Your task to perform on an android device: turn on priority inbox in the gmail app Image 0: 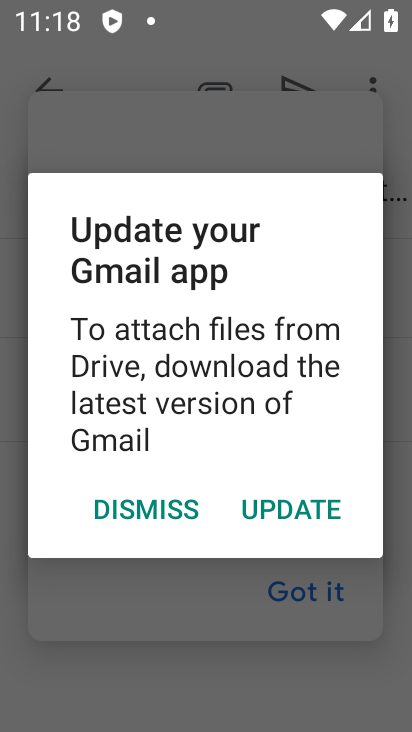
Step 0: press back button
Your task to perform on an android device: turn on priority inbox in the gmail app Image 1: 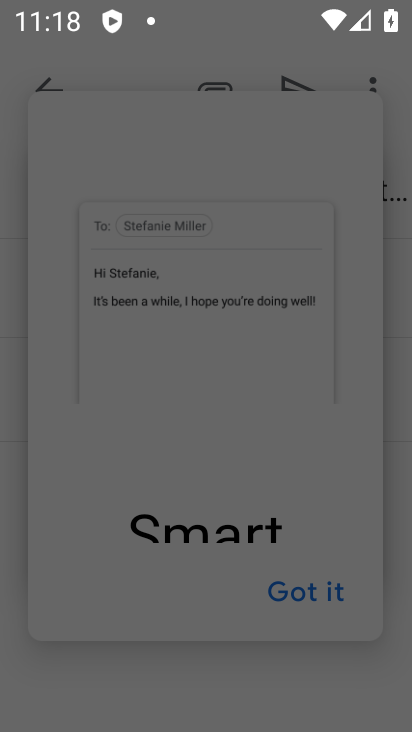
Step 1: press home button
Your task to perform on an android device: turn on priority inbox in the gmail app Image 2: 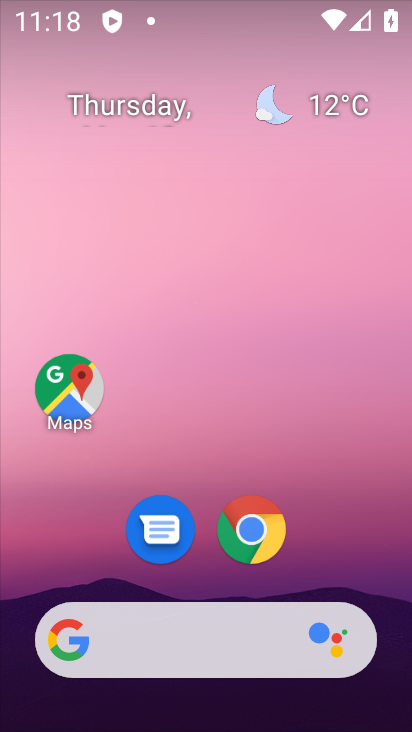
Step 2: drag from (342, 547) to (327, 269)
Your task to perform on an android device: turn on priority inbox in the gmail app Image 3: 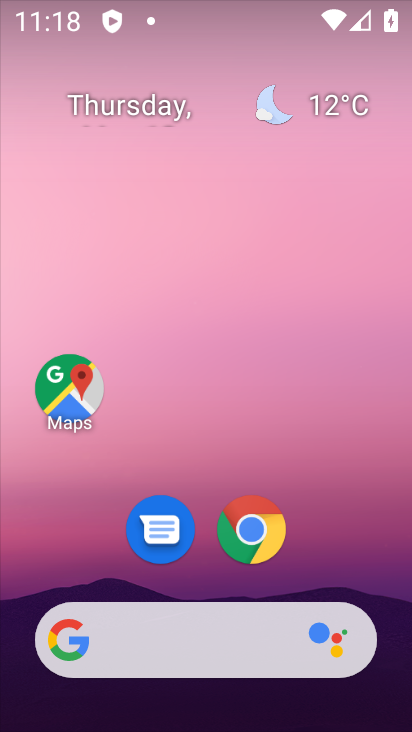
Step 3: drag from (286, 567) to (324, 118)
Your task to perform on an android device: turn on priority inbox in the gmail app Image 4: 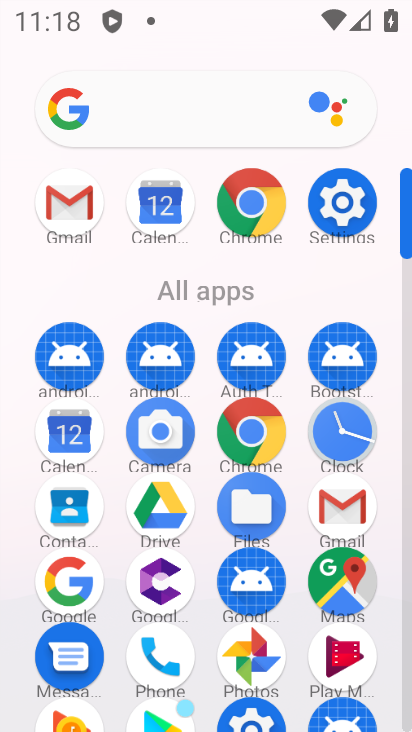
Step 4: click (61, 201)
Your task to perform on an android device: turn on priority inbox in the gmail app Image 5: 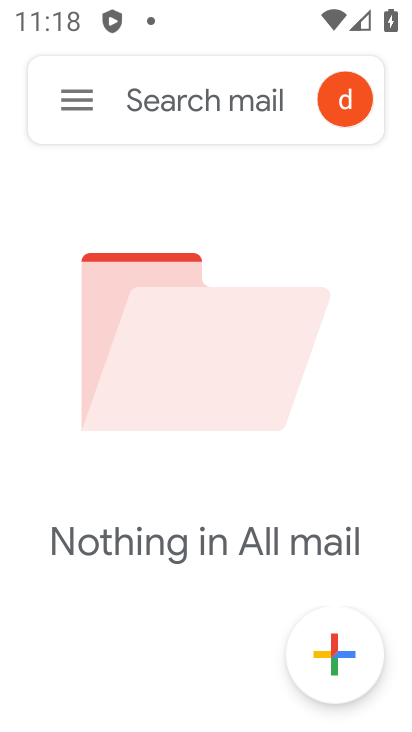
Step 5: click (76, 97)
Your task to perform on an android device: turn on priority inbox in the gmail app Image 6: 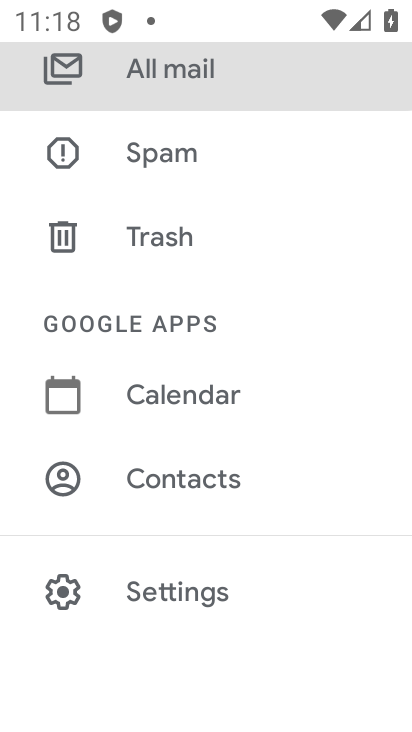
Step 6: click (190, 583)
Your task to perform on an android device: turn on priority inbox in the gmail app Image 7: 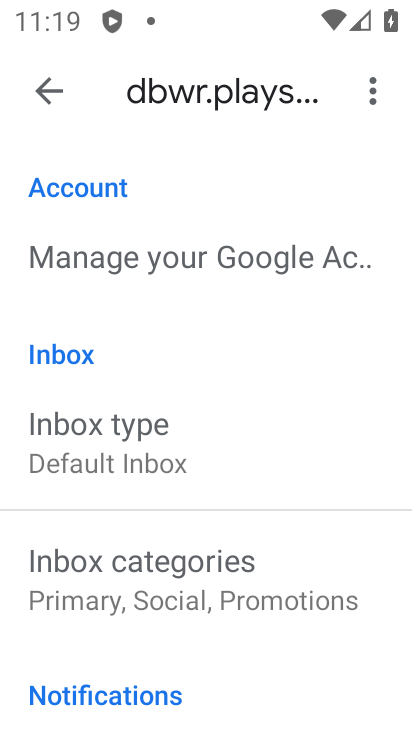
Step 7: drag from (249, 601) to (236, 521)
Your task to perform on an android device: turn on priority inbox in the gmail app Image 8: 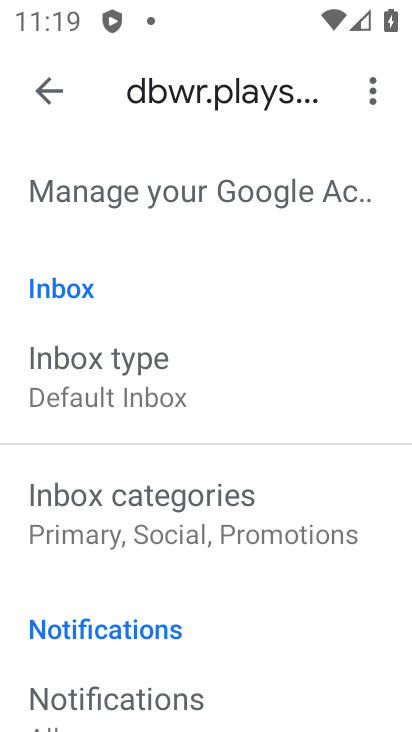
Step 8: click (157, 399)
Your task to perform on an android device: turn on priority inbox in the gmail app Image 9: 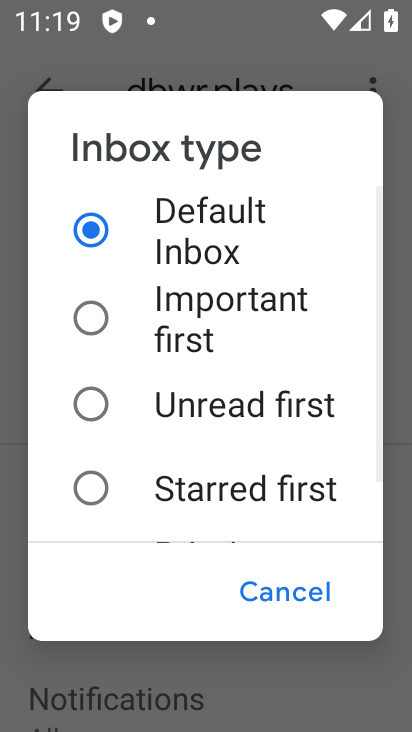
Step 9: drag from (176, 447) to (218, 177)
Your task to perform on an android device: turn on priority inbox in the gmail app Image 10: 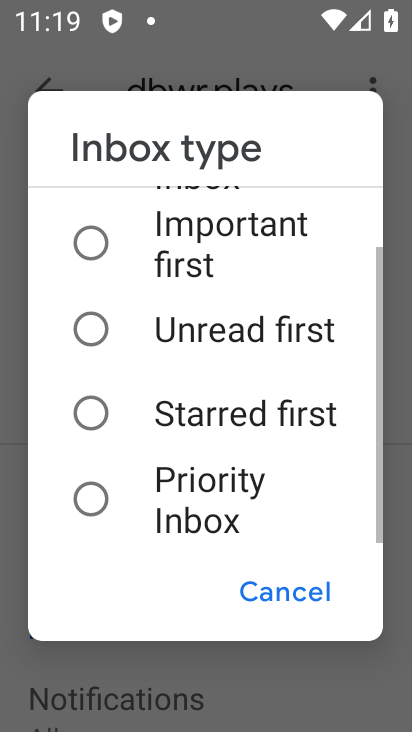
Step 10: click (161, 488)
Your task to perform on an android device: turn on priority inbox in the gmail app Image 11: 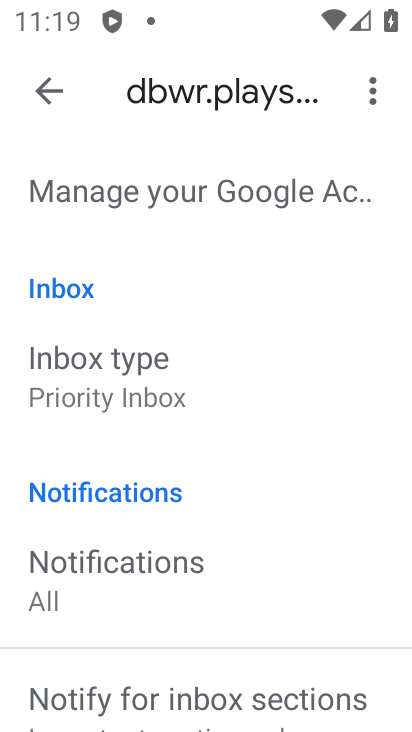
Step 11: task complete